Your task to perform on an android device: Search for sushi restaurants on Maps Image 0: 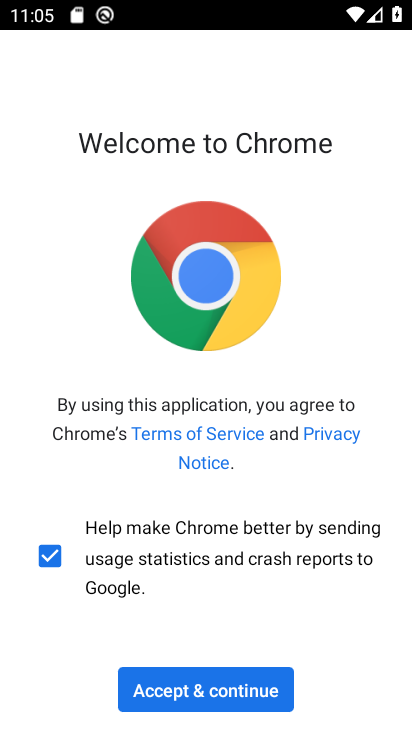
Step 0: press home button
Your task to perform on an android device: Search for sushi restaurants on Maps Image 1: 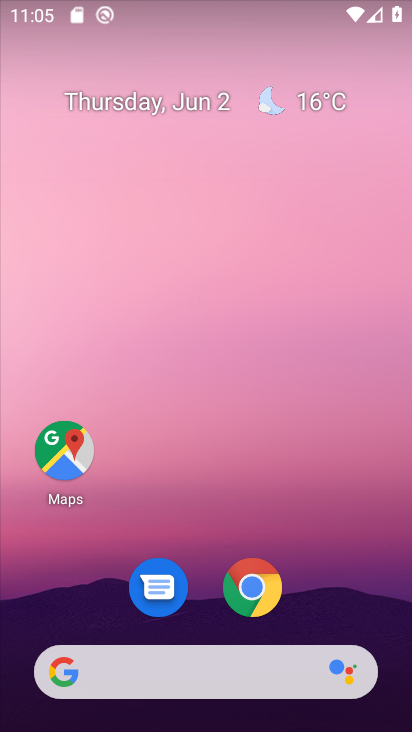
Step 1: click (65, 456)
Your task to perform on an android device: Search for sushi restaurants on Maps Image 2: 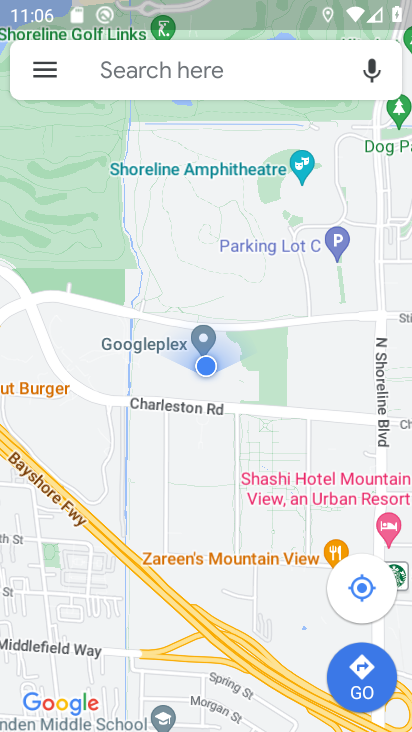
Step 2: click (163, 66)
Your task to perform on an android device: Search for sushi restaurants on Maps Image 3: 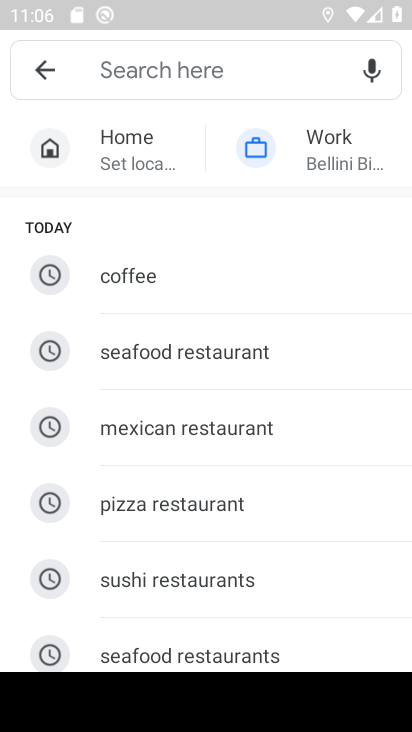
Step 3: click (215, 571)
Your task to perform on an android device: Search for sushi restaurants on Maps Image 4: 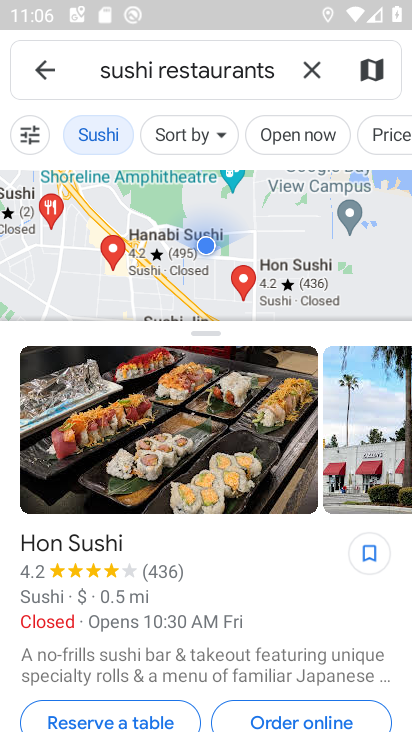
Step 4: task complete